Your task to perform on an android device: Open Google Chrome and click the shortcut for Amazon.com Image 0: 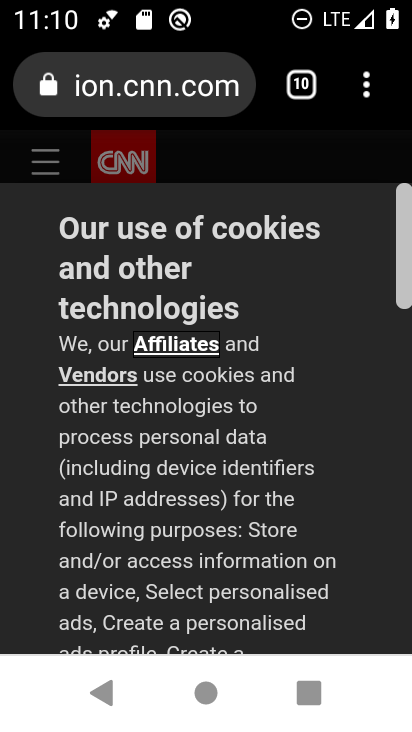
Step 0: click (350, 91)
Your task to perform on an android device: Open Google Chrome and click the shortcut for Amazon.com Image 1: 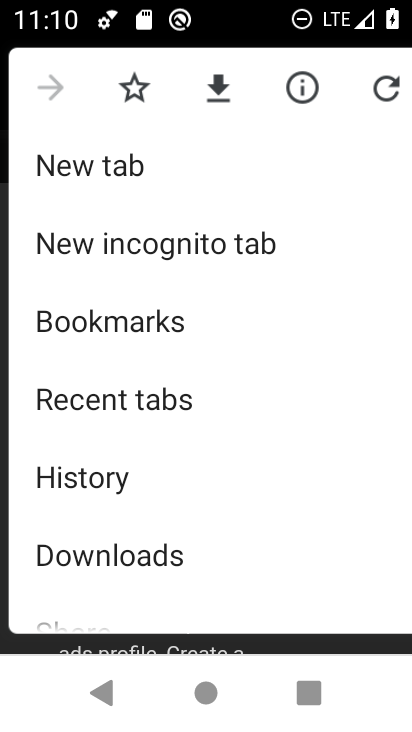
Step 1: click (168, 164)
Your task to perform on an android device: Open Google Chrome and click the shortcut for Amazon.com Image 2: 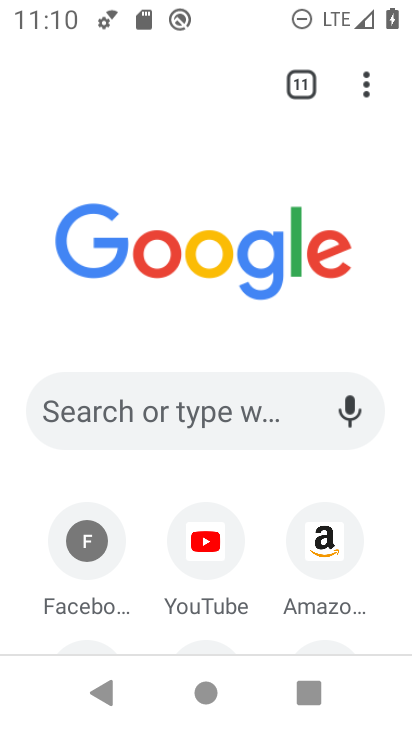
Step 2: click (338, 554)
Your task to perform on an android device: Open Google Chrome and click the shortcut for Amazon.com Image 3: 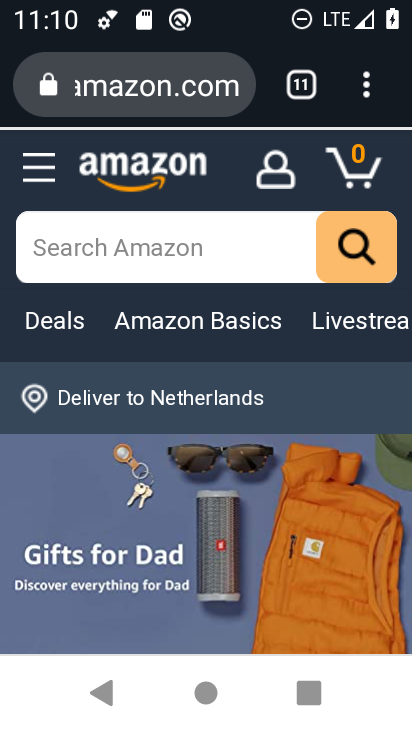
Step 3: task complete